Your task to perform on an android device: Open Google Chrome and click the shortcut for Amazon.com Image 0: 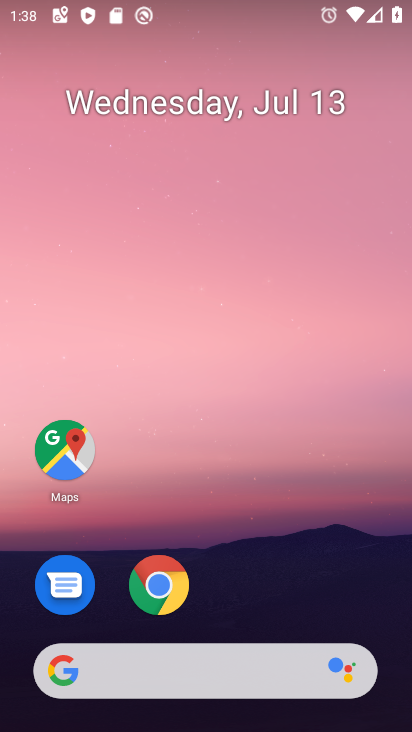
Step 0: click (151, 595)
Your task to perform on an android device: Open Google Chrome and click the shortcut for Amazon.com Image 1: 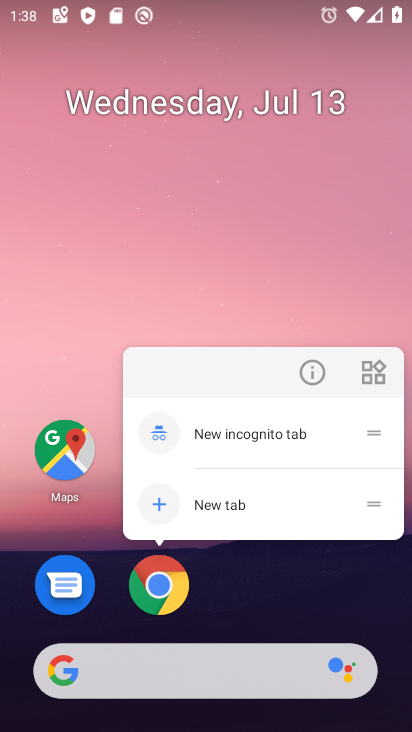
Step 1: click (159, 585)
Your task to perform on an android device: Open Google Chrome and click the shortcut for Amazon.com Image 2: 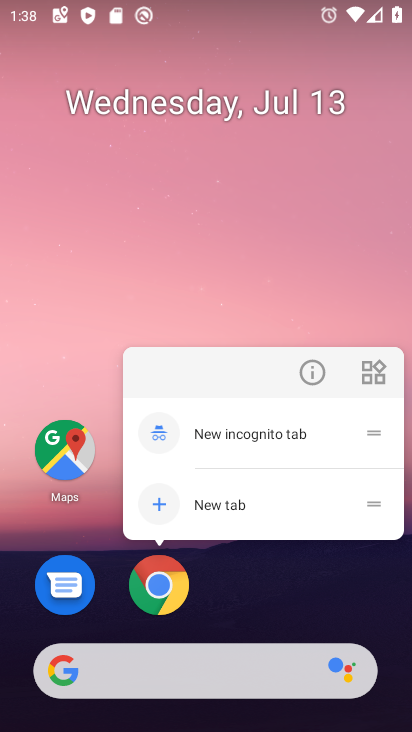
Step 2: click (159, 584)
Your task to perform on an android device: Open Google Chrome and click the shortcut for Amazon.com Image 3: 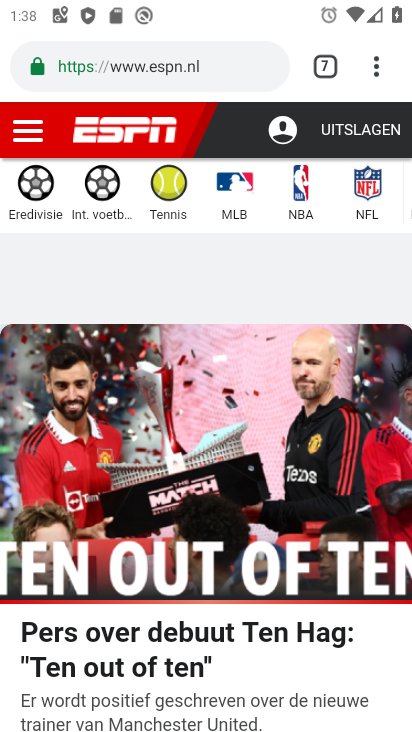
Step 3: drag from (376, 60) to (267, 125)
Your task to perform on an android device: Open Google Chrome and click the shortcut for Amazon.com Image 4: 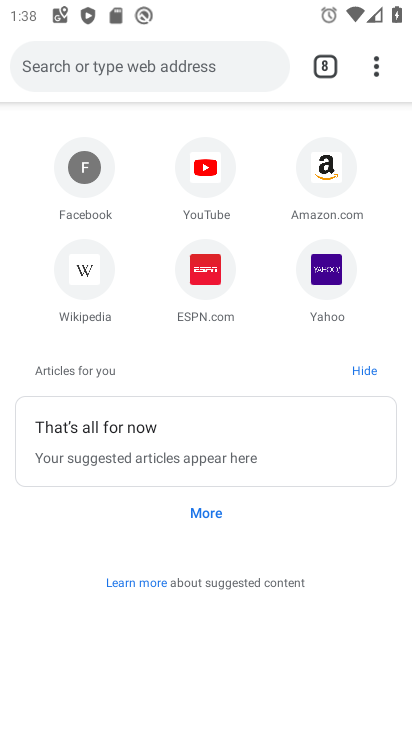
Step 4: click (323, 177)
Your task to perform on an android device: Open Google Chrome and click the shortcut for Amazon.com Image 5: 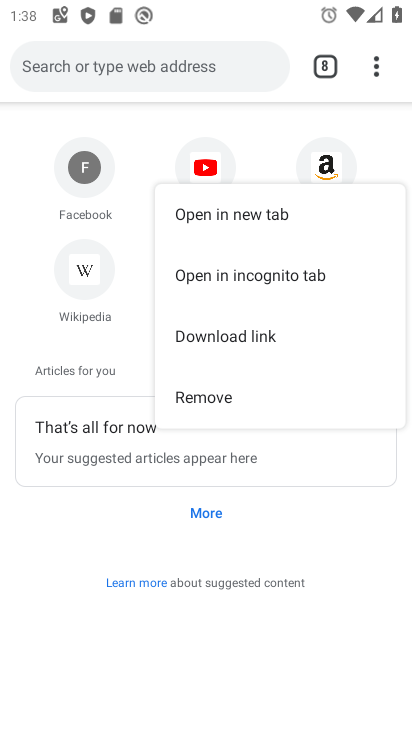
Step 5: click (315, 166)
Your task to perform on an android device: Open Google Chrome and click the shortcut for Amazon.com Image 6: 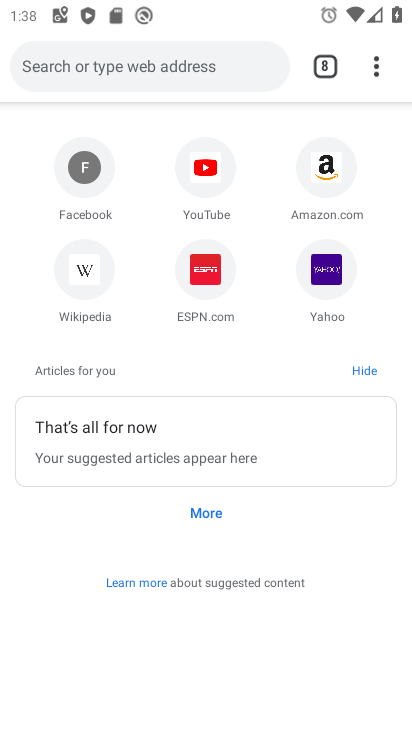
Step 6: click (326, 170)
Your task to perform on an android device: Open Google Chrome and click the shortcut for Amazon.com Image 7: 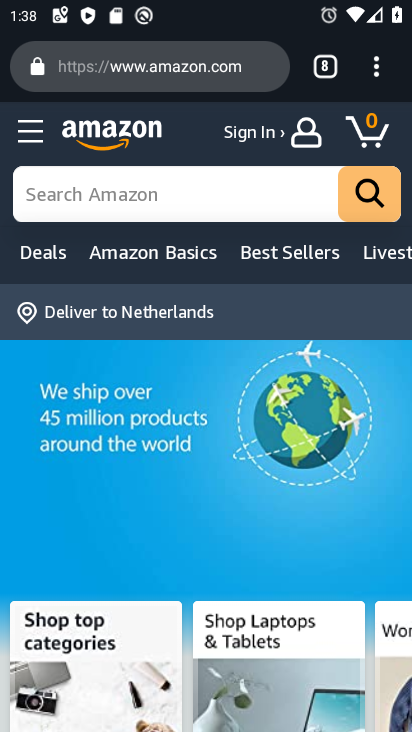
Step 7: task complete